Your task to perform on an android device: open a new tab in the chrome app Image 0: 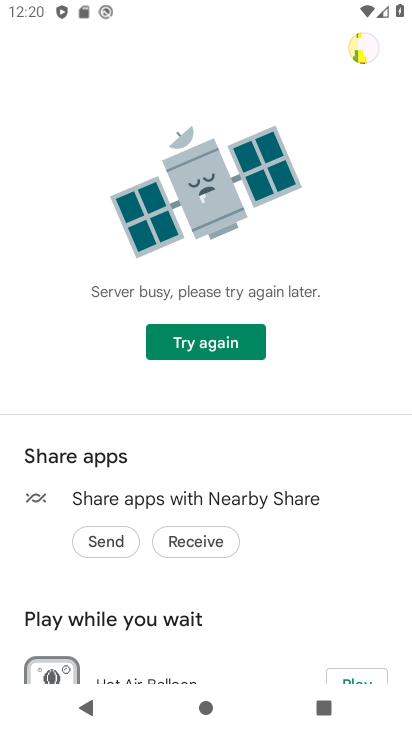
Step 0: press home button
Your task to perform on an android device: open a new tab in the chrome app Image 1: 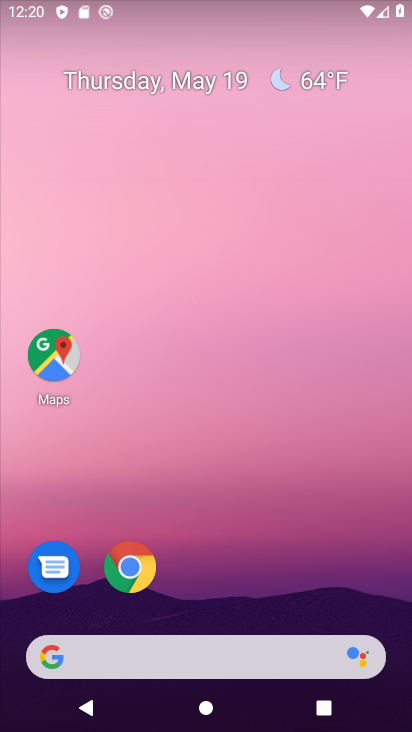
Step 1: click (142, 583)
Your task to perform on an android device: open a new tab in the chrome app Image 2: 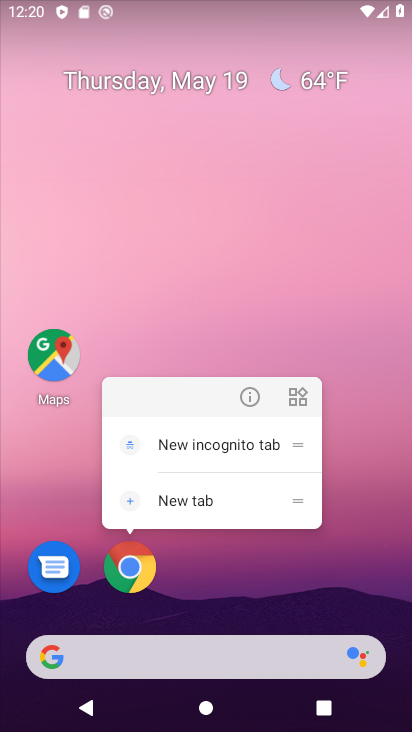
Step 2: click (135, 573)
Your task to perform on an android device: open a new tab in the chrome app Image 3: 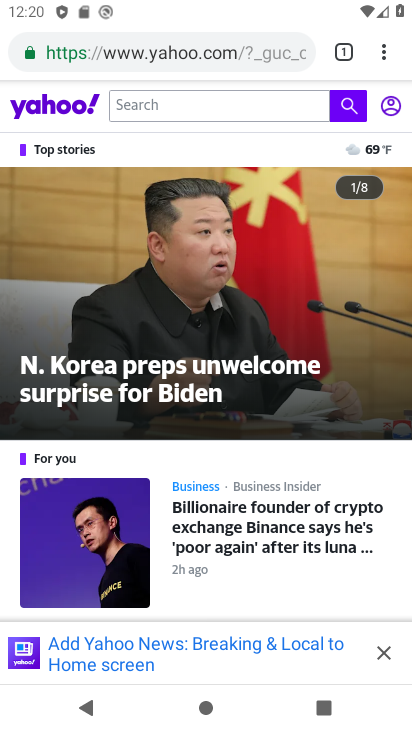
Step 3: task complete